Your task to perform on an android device: Check the weather Image 0: 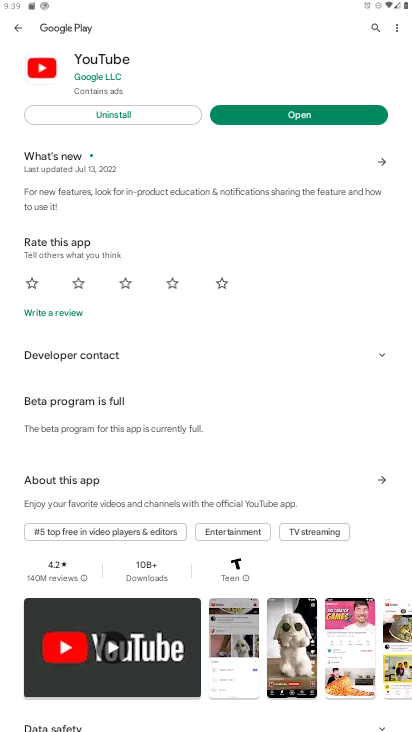
Step 0: press home button
Your task to perform on an android device: Check the weather Image 1: 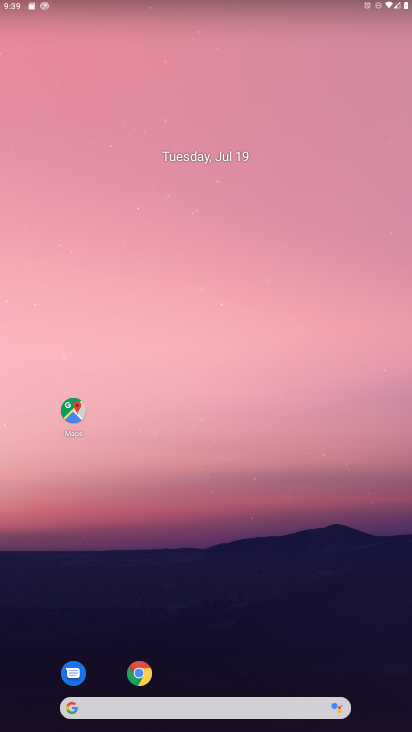
Step 1: click (145, 707)
Your task to perform on an android device: Check the weather Image 2: 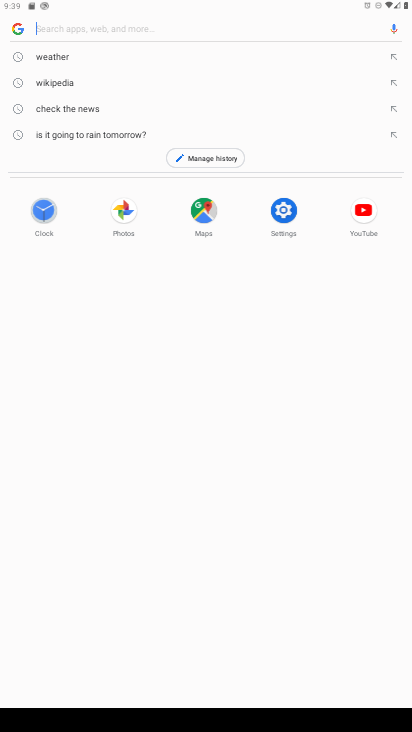
Step 2: click (49, 57)
Your task to perform on an android device: Check the weather Image 3: 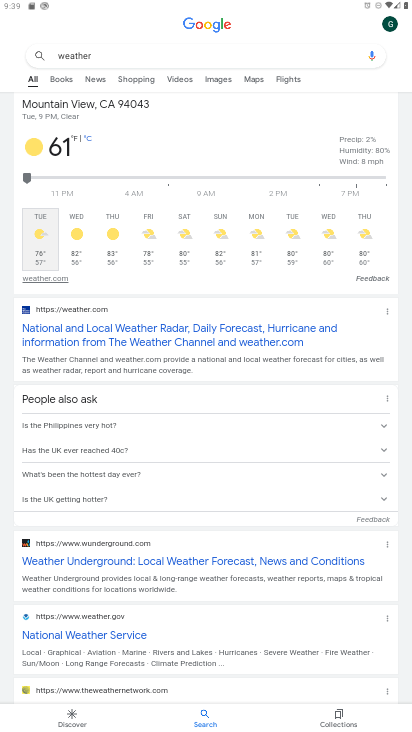
Step 3: task complete